Your task to perform on an android device: set default search engine in the chrome app Image 0: 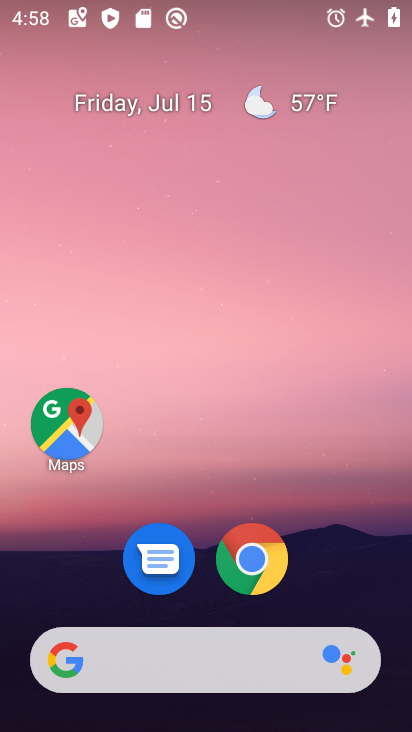
Step 0: click (267, 559)
Your task to perform on an android device: set default search engine in the chrome app Image 1: 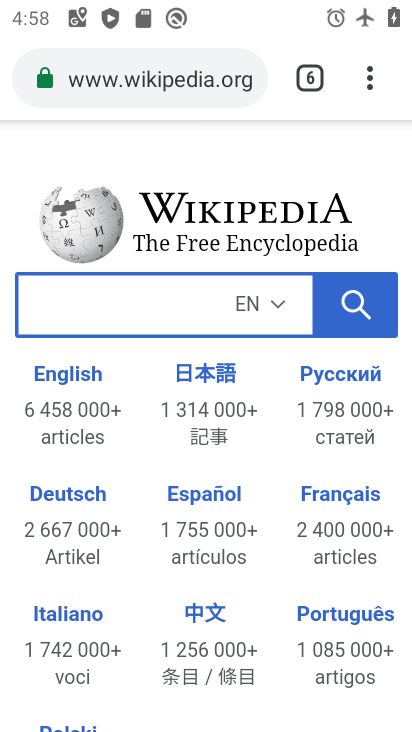
Step 1: drag from (364, 70) to (84, 622)
Your task to perform on an android device: set default search engine in the chrome app Image 2: 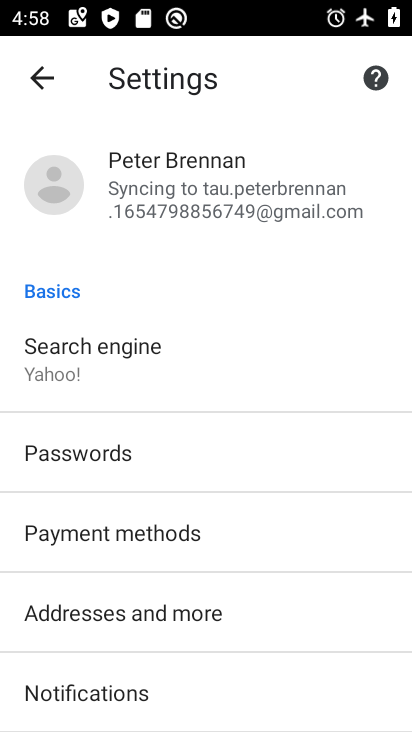
Step 2: click (58, 355)
Your task to perform on an android device: set default search engine in the chrome app Image 3: 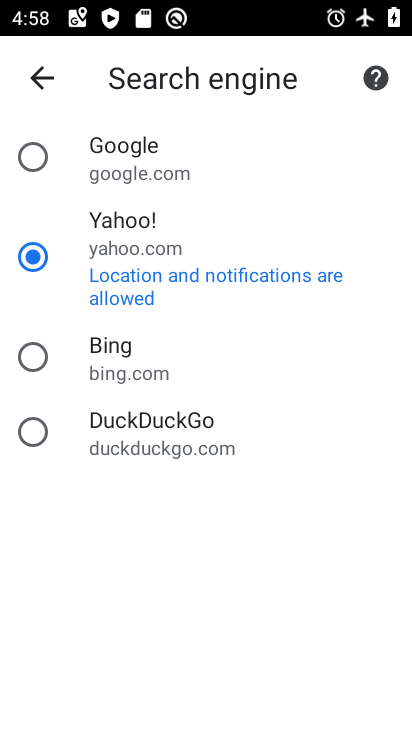
Step 3: click (55, 155)
Your task to perform on an android device: set default search engine in the chrome app Image 4: 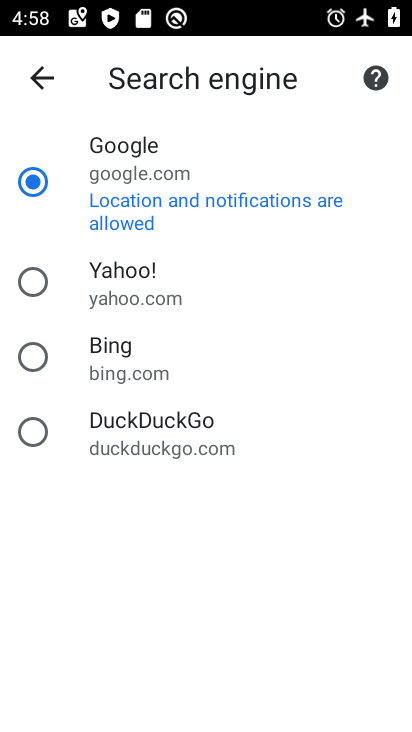
Step 4: task complete